Your task to perform on an android device: Show the shopping cart on target.com. Image 0: 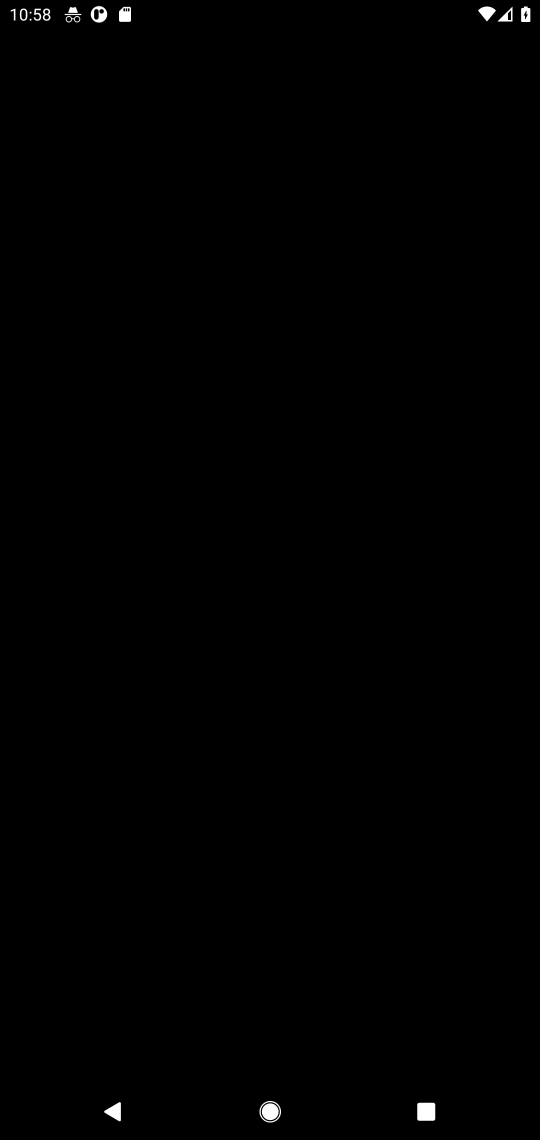
Step 0: press home button
Your task to perform on an android device: Show the shopping cart on target.com. Image 1: 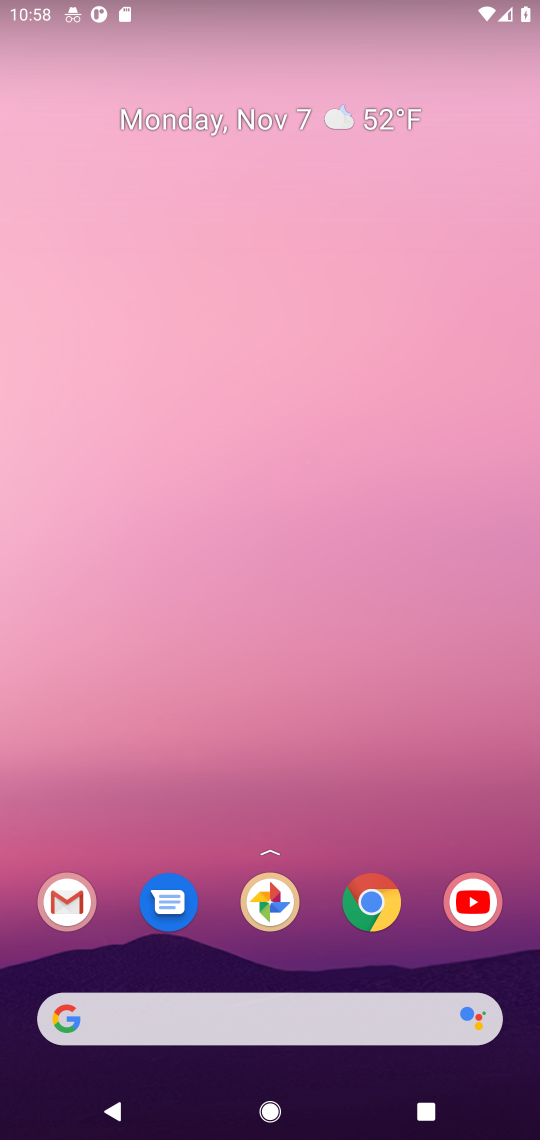
Step 1: click (381, 905)
Your task to perform on an android device: Show the shopping cart on target.com. Image 2: 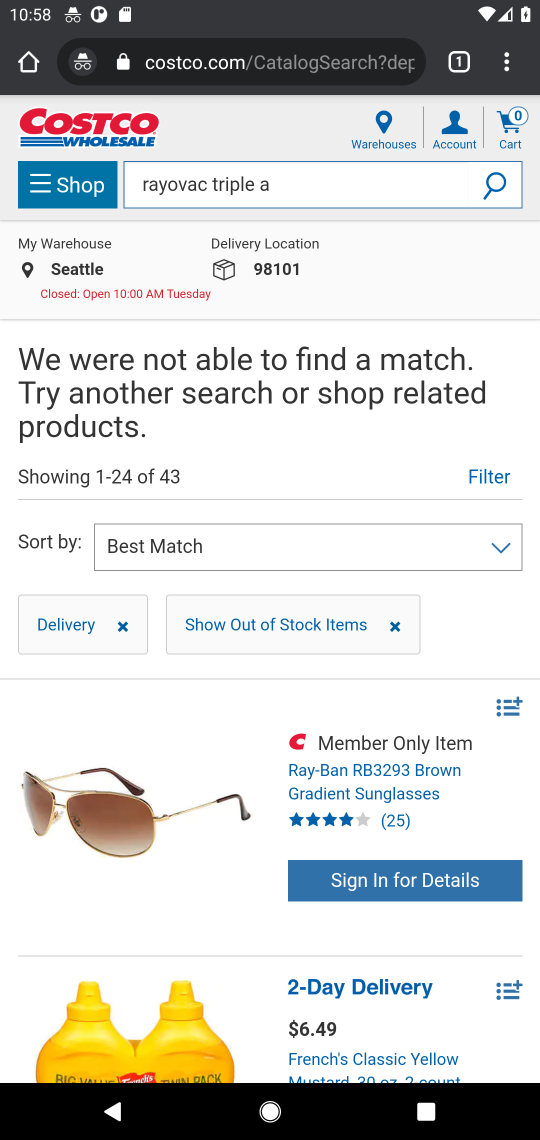
Step 2: click (222, 74)
Your task to perform on an android device: Show the shopping cart on target.com. Image 3: 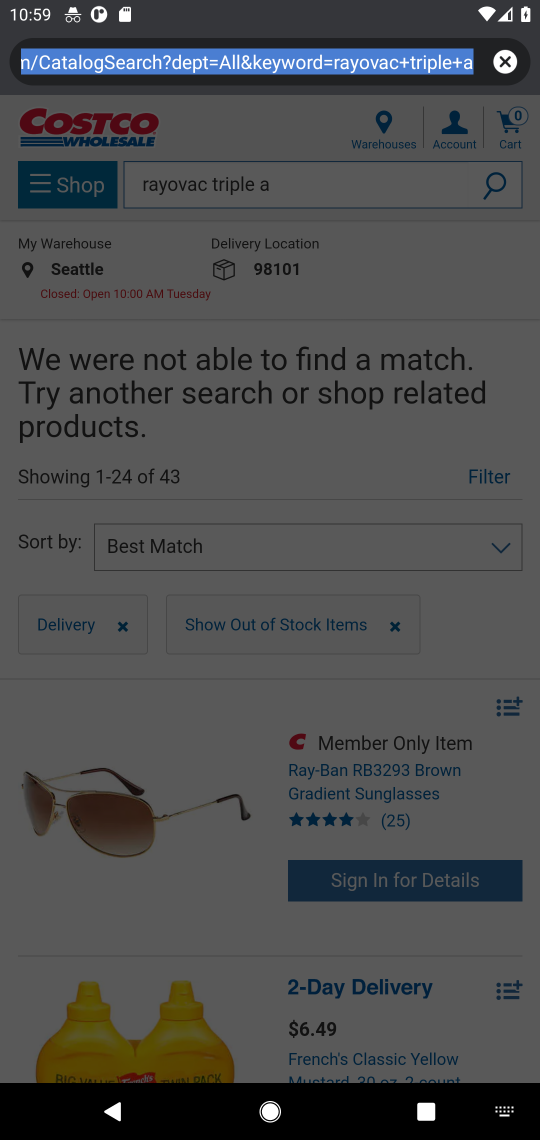
Step 3: type "target.com"
Your task to perform on an android device: Show the shopping cart on target.com. Image 4: 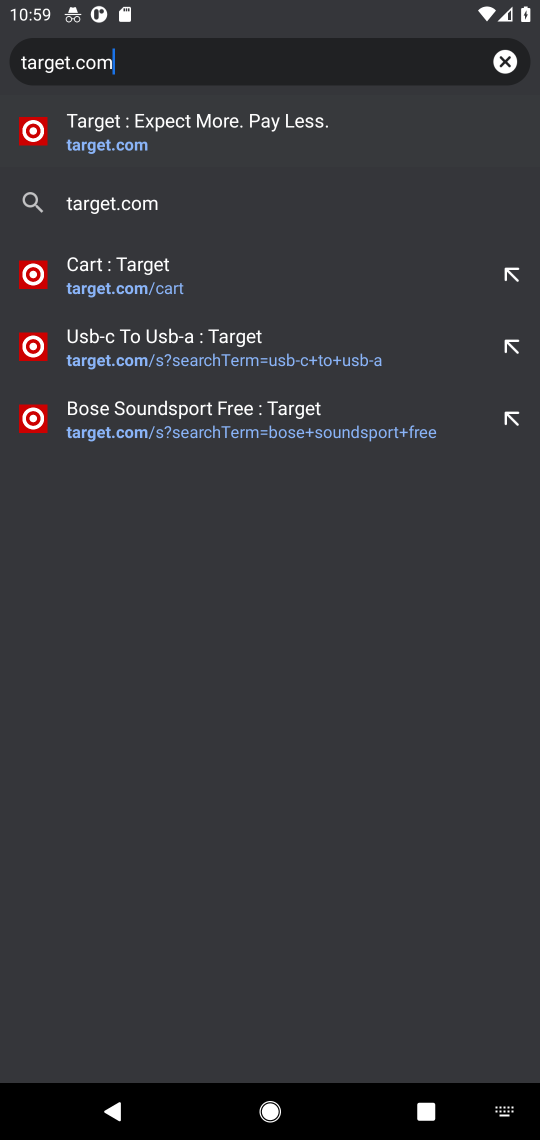
Step 4: click (107, 153)
Your task to perform on an android device: Show the shopping cart on target.com. Image 5: 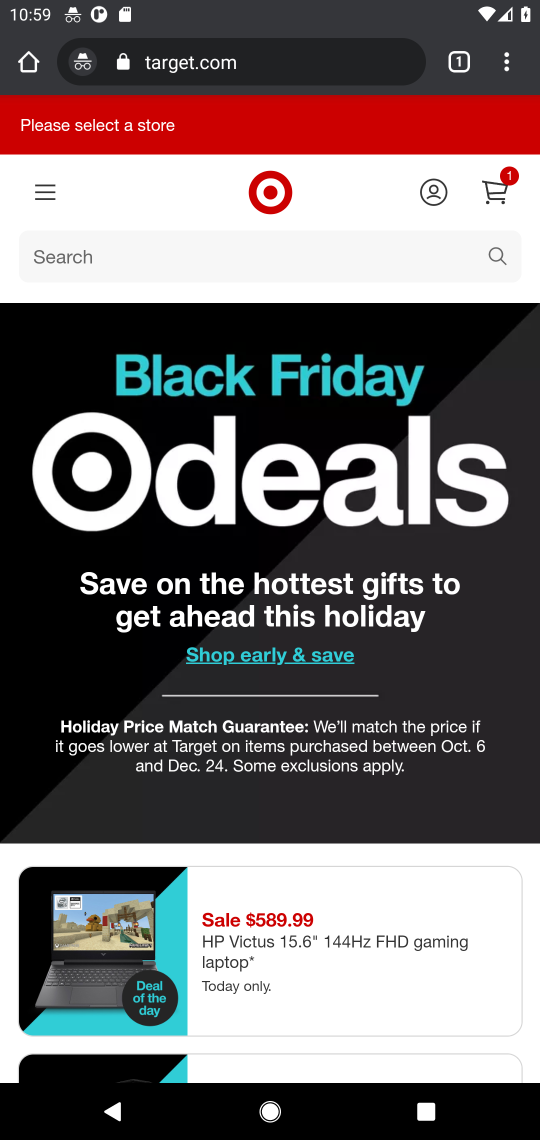
Step 5: click (496, 186)
Your task to perform on an android device: Show the shopping cart on target.com. Image 6: 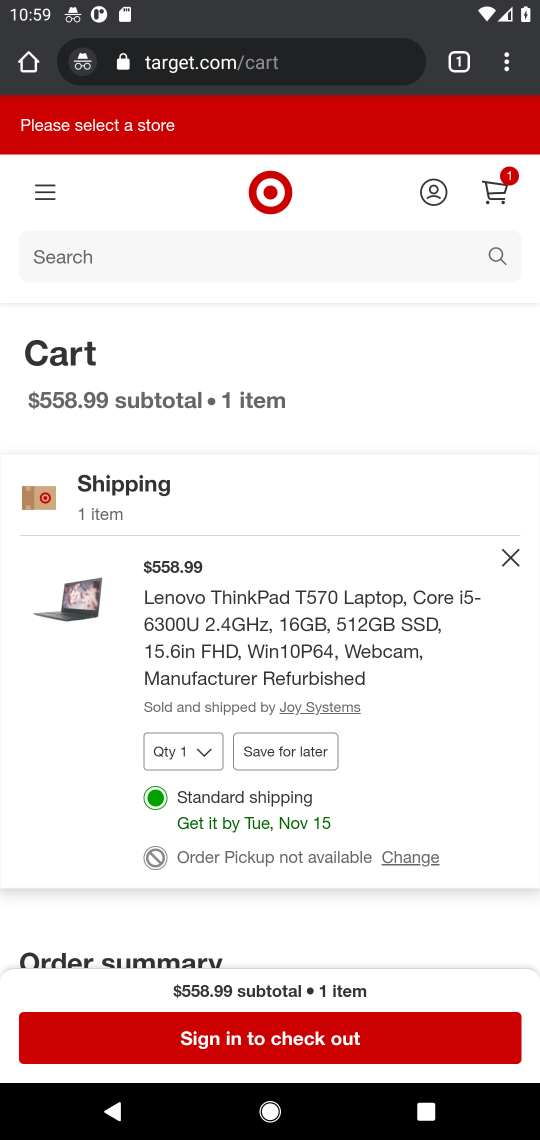
Step 6: task complete